Your task to perform on an android device: Go to eBay Image 0: 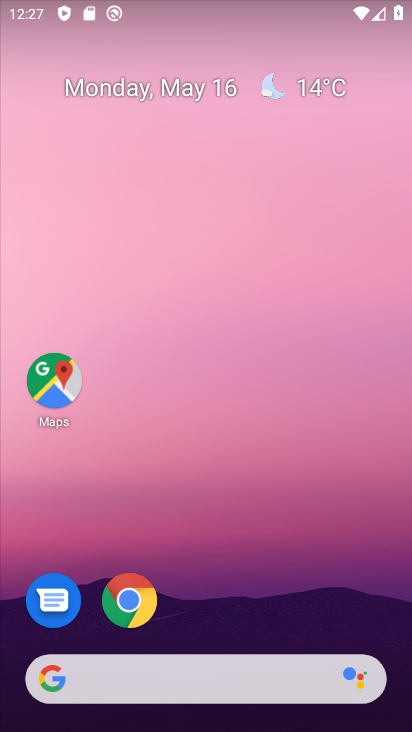
Step 0: drag from (292, 606) to (272, 252)
Your task to perform on an android device: Go to eBay Image 1: 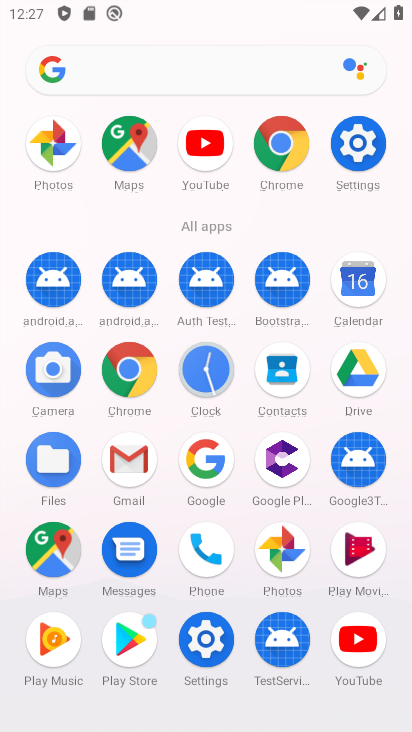
Step 1: click (140, 603)
Your task to perform on an android device: Go to eBay Image 2: 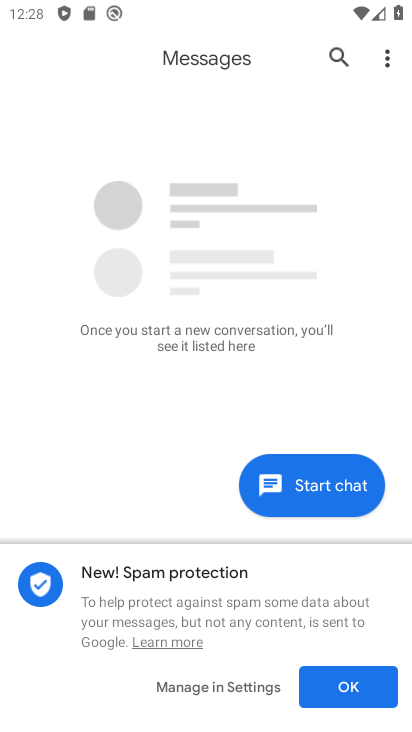
Step 2: click (289, 149)
Your task to perform on an android device: Go to eBay Image 3: 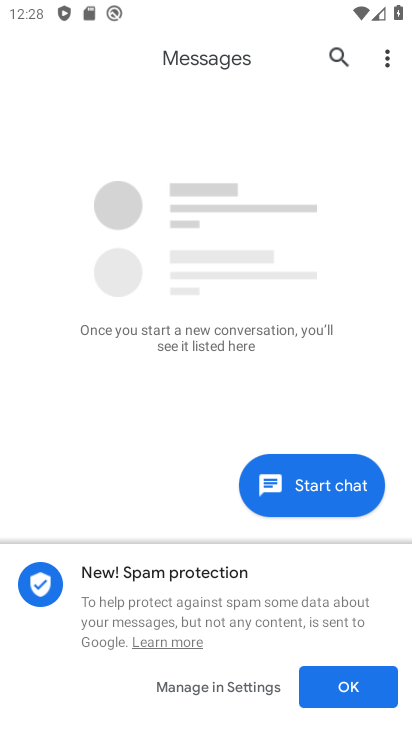
Step 3: click (356, 685)
Your task to perform on an android device: Go to eBay Image 4: 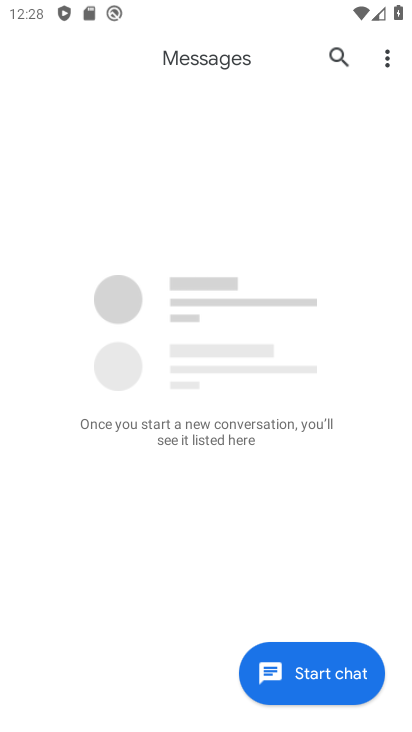
Step 4: press home button
Your task to perform on an android device: Go to eBay Image 5: 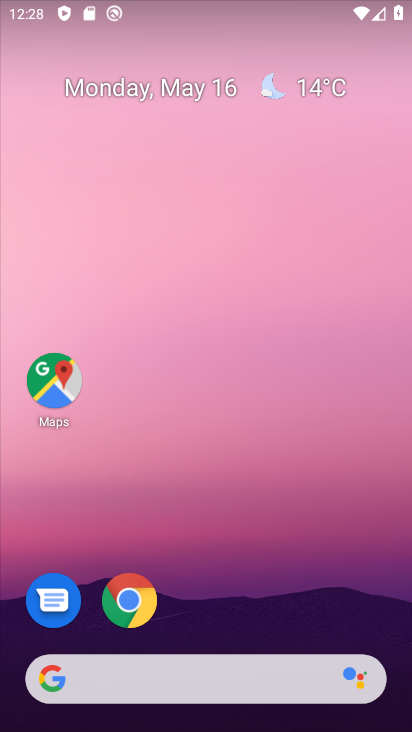
Step 5: click (135, 599)
Your task to perform on an android device: Go to eBay Image 6: 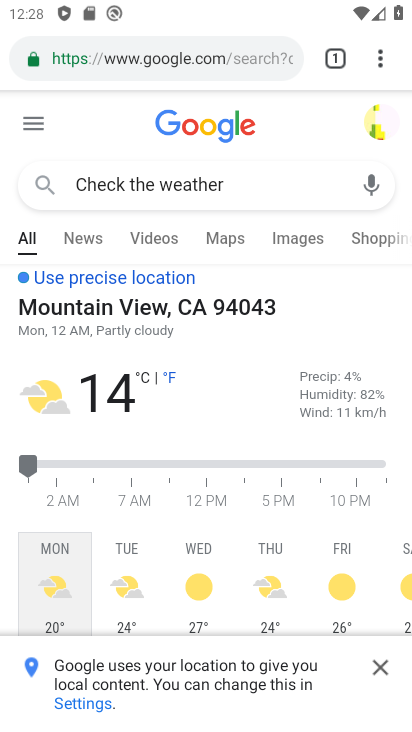
Step 6: click (183, 53)
Your task to perform on an android device: Go to eBay Image 7: 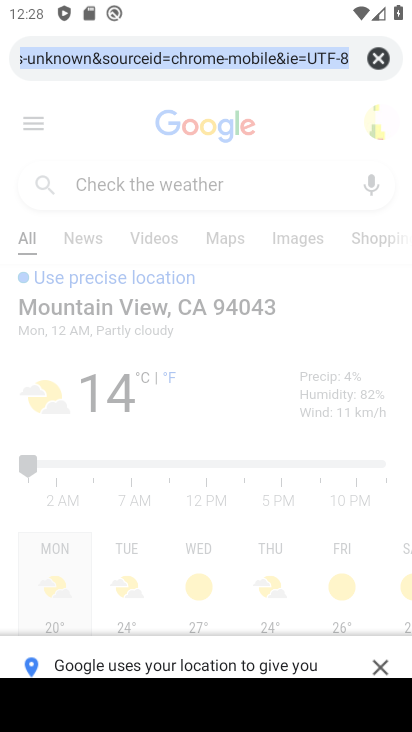
Step 7: click (377, 57)
Your task to perform on an android device: Go to eBay Image 8: 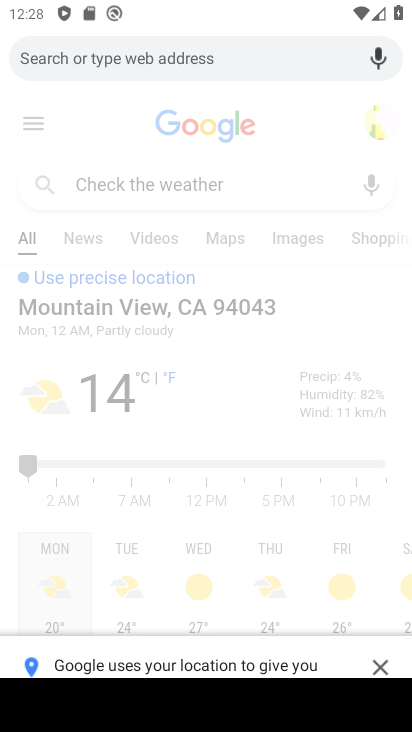
Step 8: type "eBay"
Your task to perform on an android device: Go to eBay Image 9: 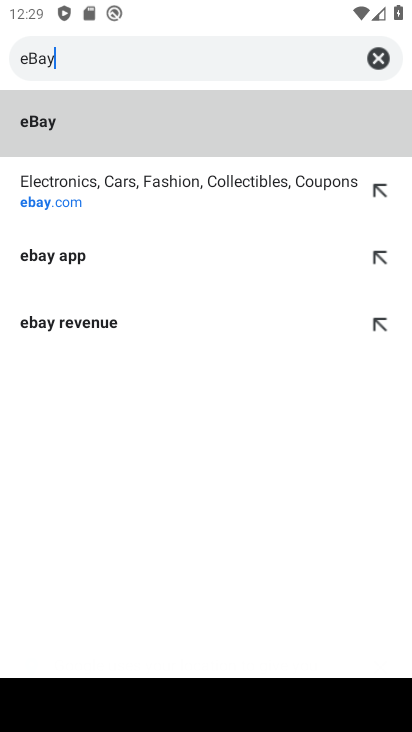
Step 9: click (41, 204)
Your task to perform on an android device: Go to eBay Image 10: 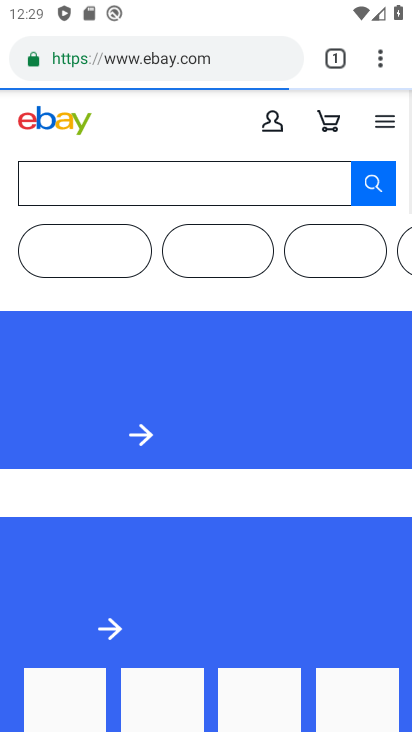
Step 10: task complete